Your task to perform on an android device: turn off picture-in-picture Image 0: 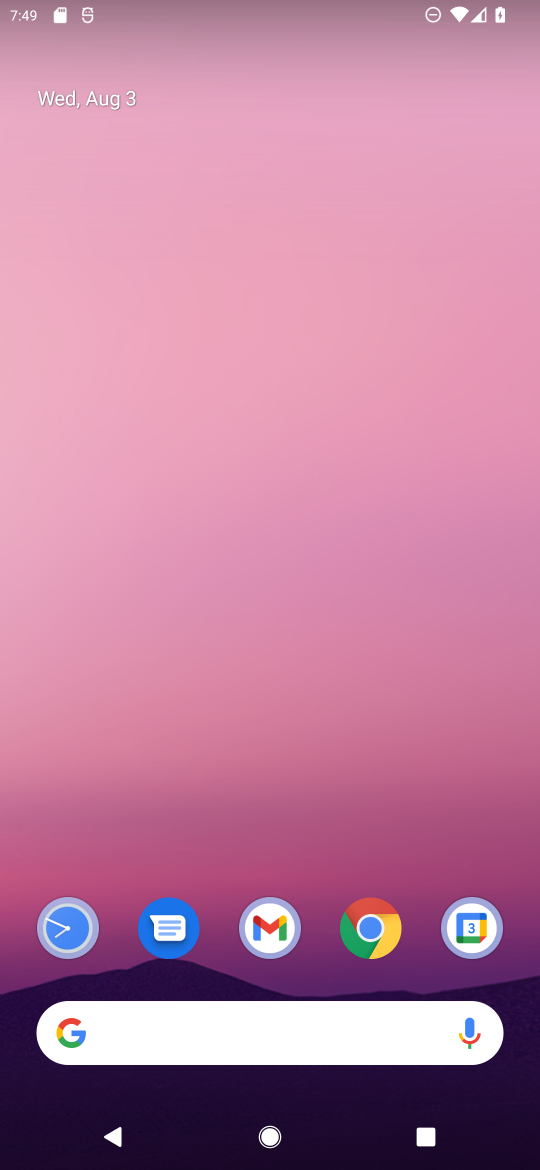
Step 0: click (378, 934)
Your task to perform on an android device: turn off picture-in-picture Image 1: 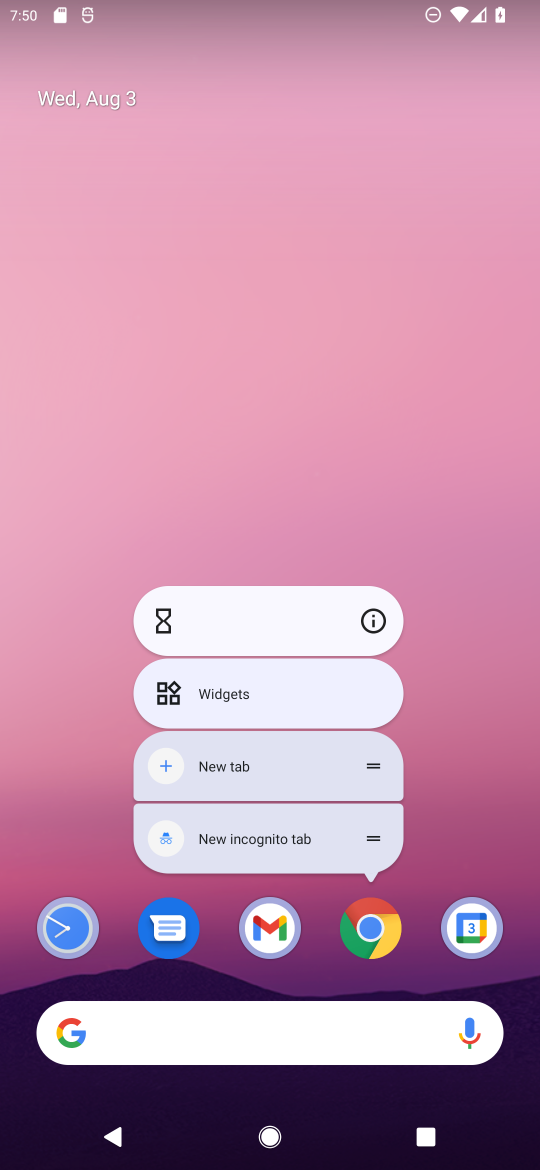
Step 1: click (369, 630)
Your task to perform on an android device: turn off picture-in-picture Image 2: 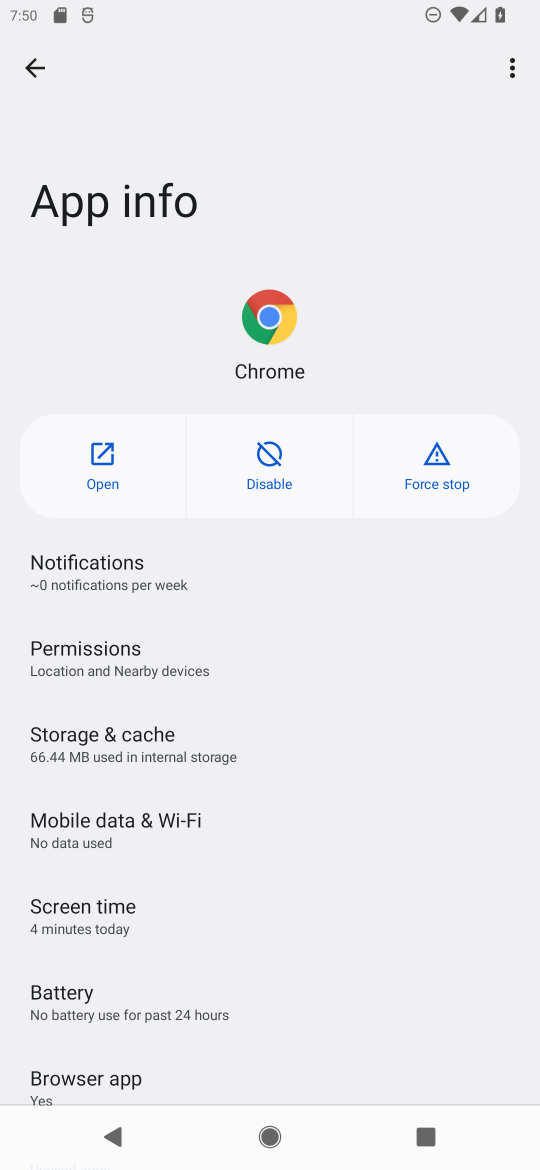
Step 2: drag from (312, 1035) to (246, 249)
Your task to perform on an android device: turn off picture-in-picture Image 3: 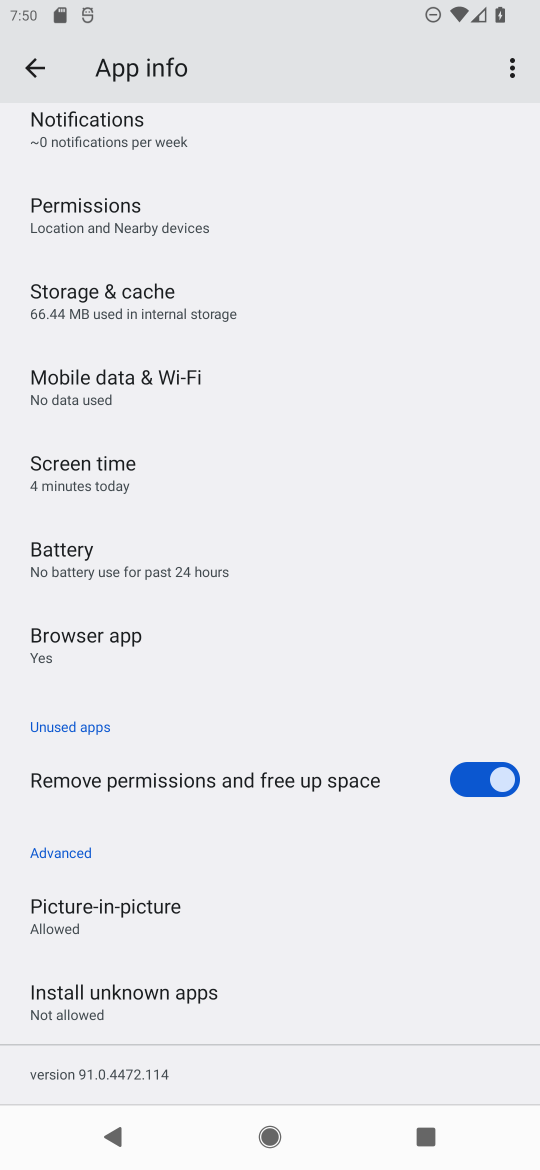
Step 3: click (333, 921)
Your task to perform on an android device: turn off picture-in-picture Image 4: 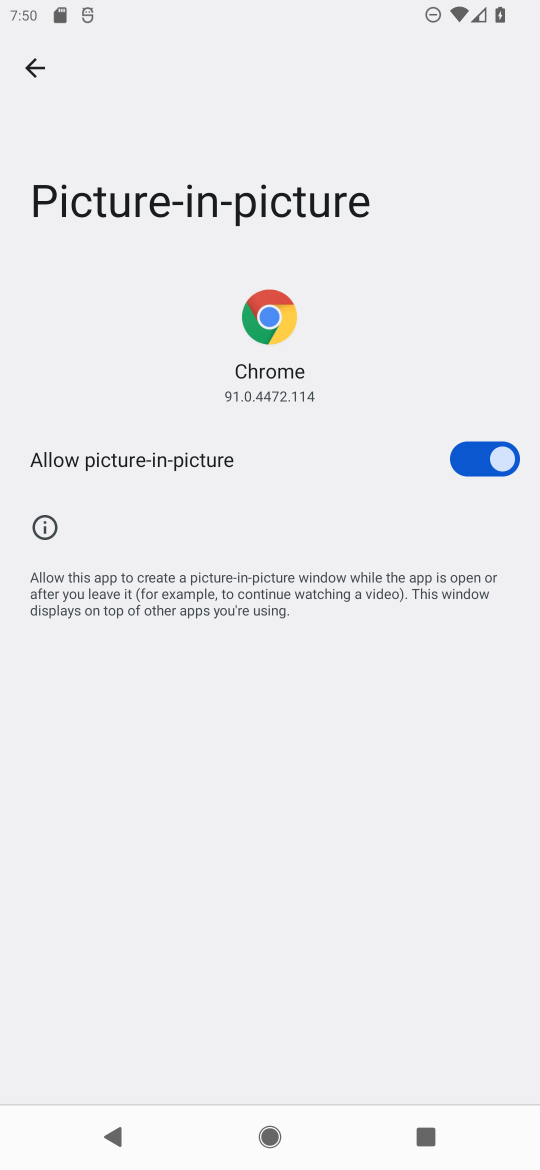
Step 4: click (463, 460)
Your task to perform on an android device: turn off picture-in-picture Image 5: 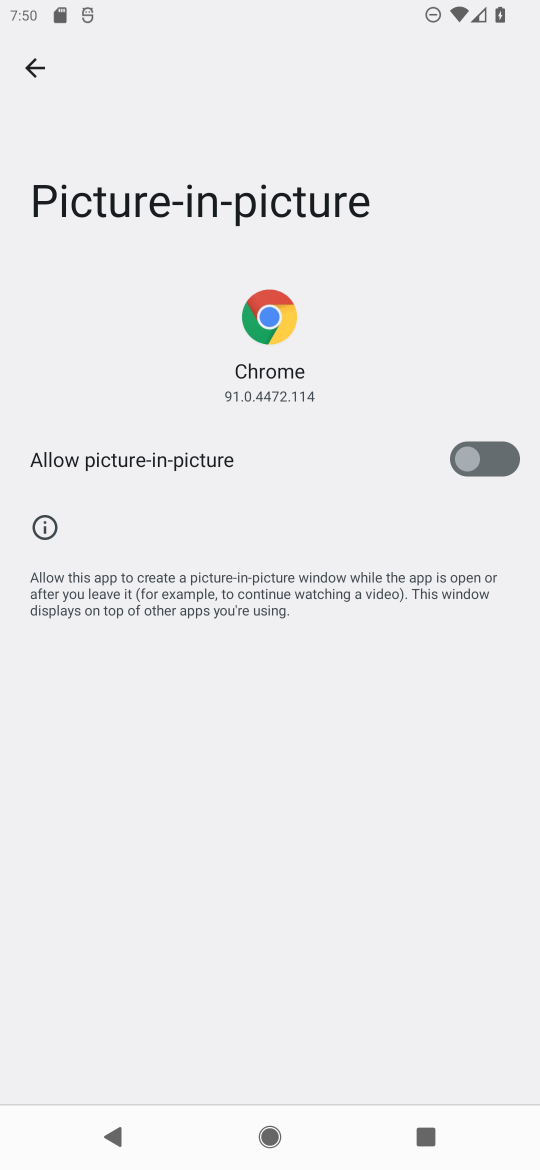
Step 5: task complete